Your task to perform on an android device: toggle sleep mode Image 0: 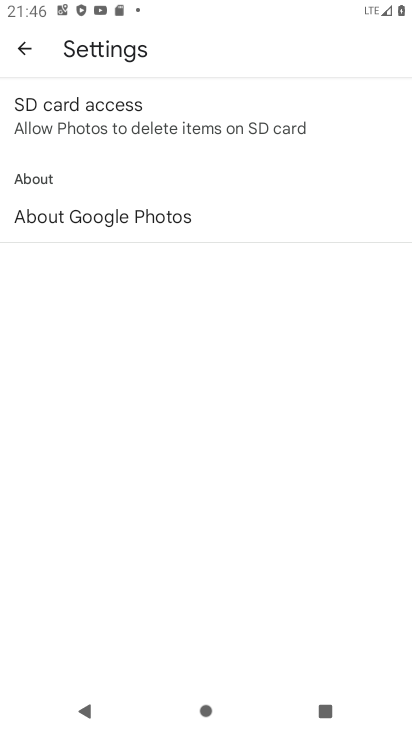
Step 0: press home button
Your task to perform on an android device: toggle sleep mode Image 1: 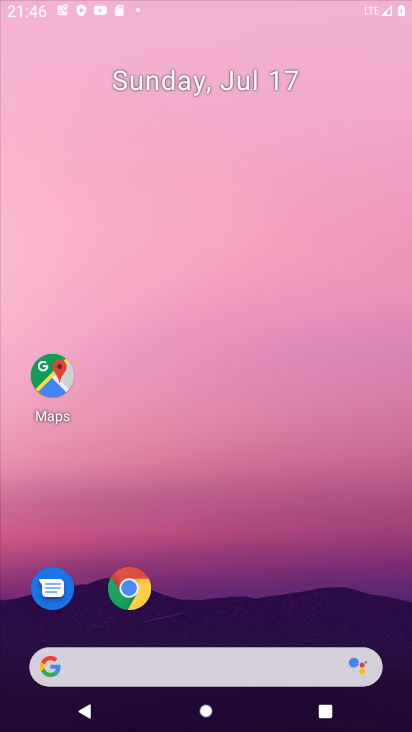
Step 1: drag from (173, 626) to (156, 130)
Your task to perform on an android device: toggle sleep mode Image 2: 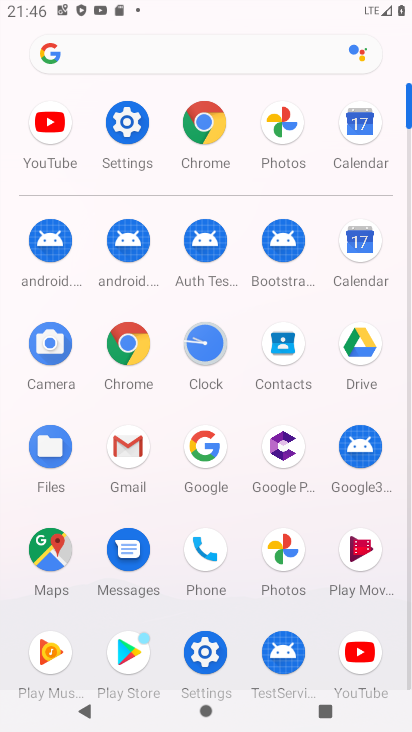
Step 2: click (124, 130)
Your task to perform on an android device: toggle sleep mode Image 3: 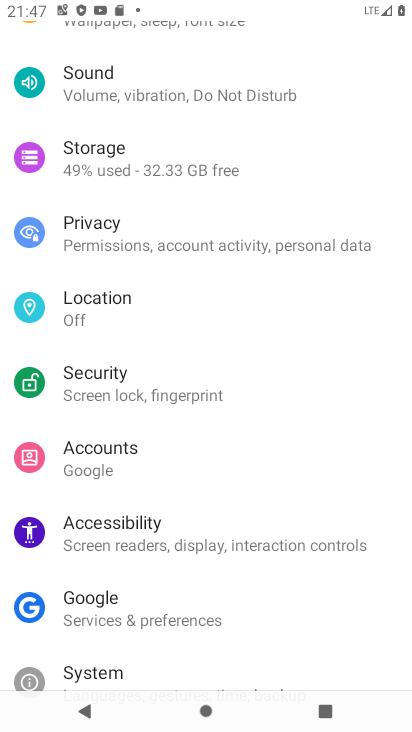
Step 3: drag from (144, 147) to (159, 518)
Your task to perform on an android device: toggle sleep mode Image 4: 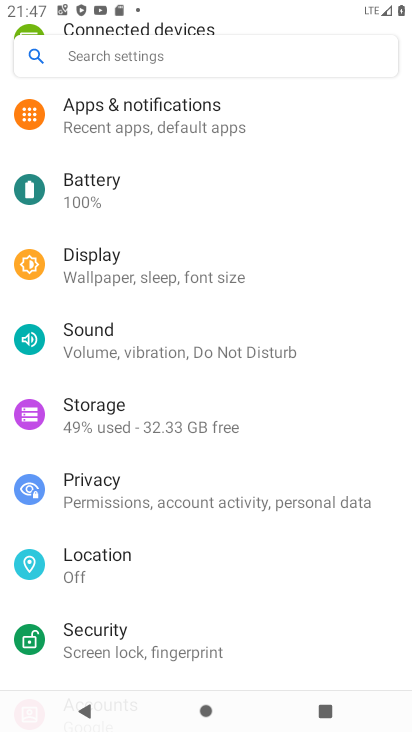
Step 4: click (104, 288)
Your task to perform on an android device: toggle sleep mode Image 5: 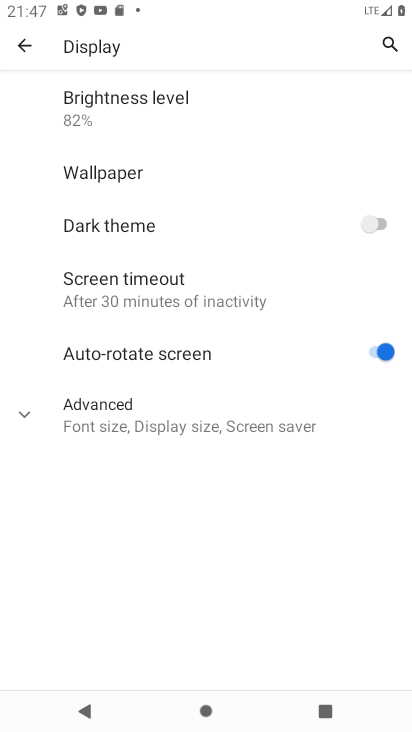
Step 5: task complete